Your task to perform on an android device: Open calendar and show me the fourth week of next month Image 0: 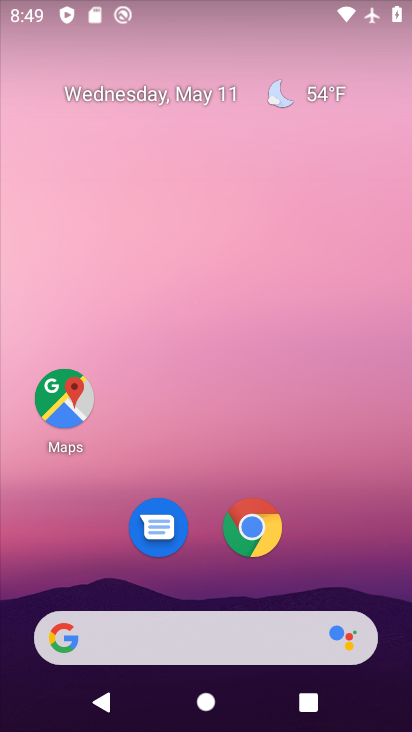
Step 0: drag from (345, 423) to (346, 104)
Your task to perform on an android device: Open calendar and show me the fourth week of next month Image 1: 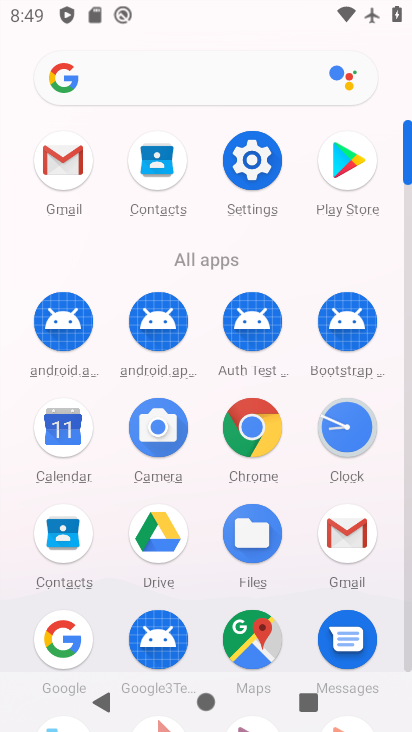
Step 1: click (62, 426)
Your task to perform on an android device: Open calendar and show me the fourth week of next month Image 2: 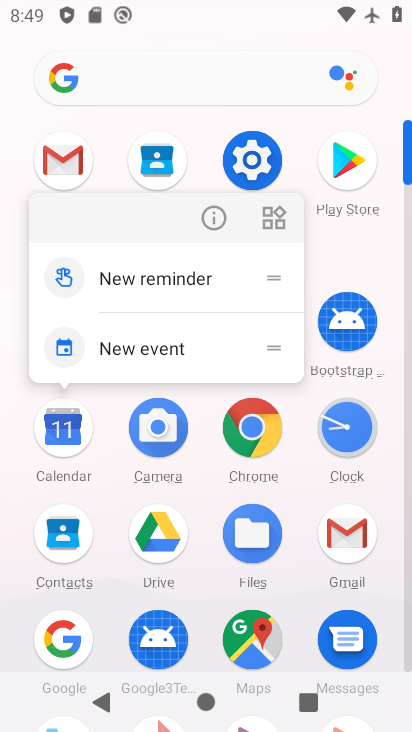
Step 2: click (57, 442)
Your task to perform on an android device: Open calendar and show me the fourth week of next month Image 3: 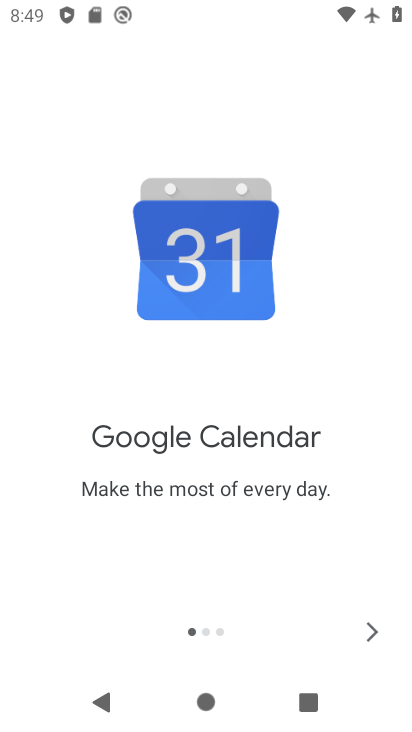
Step 3: click (356, 632)
Your task to perform on an android device: Open calendar and show me the fourth week of next month Image 4: 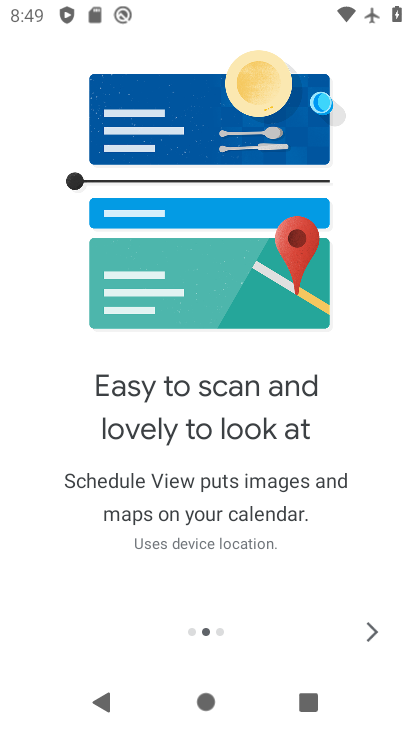
Step 4: click (361, 626)
Your task to perform on an android device: Open calendar and show me the fourth week of next month Image 5: 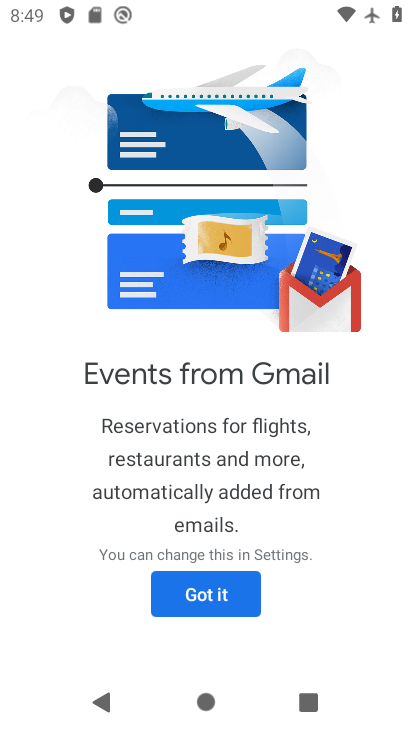
Step 5: click (231, 596)
Your task to perform on an android device: Open calendar and show me the fourth week of next month Image 6: 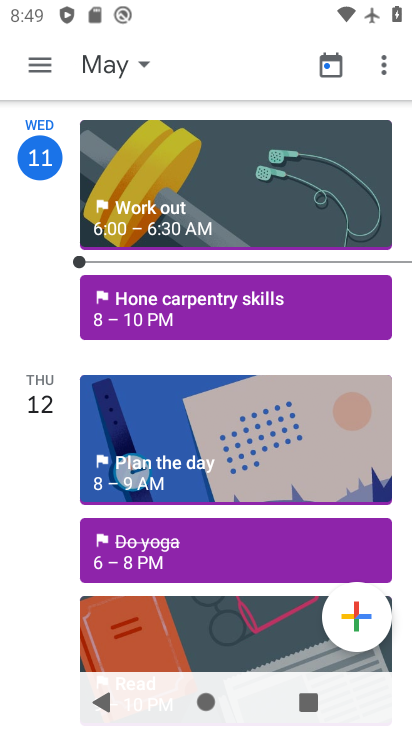
Step 6: click (100, 71)
Your task to perform on an android device: Open calendar and show me the fourth week of next month Image 7: 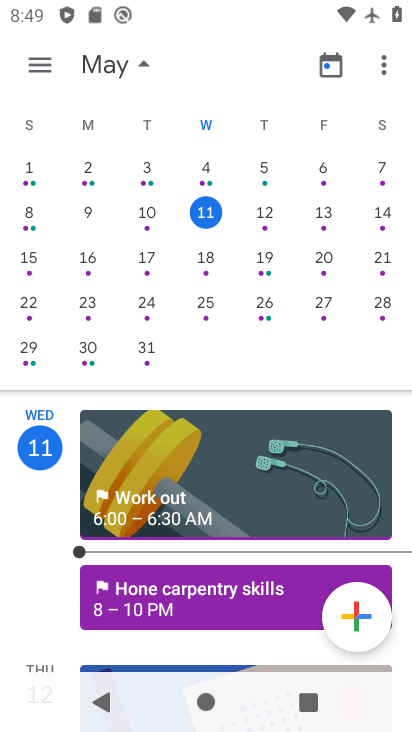
Step 7: drag from (339, 273) to (27, 335)
Your task to perform on an android device: Open calendar and show me the fourth week of next month Image 8: 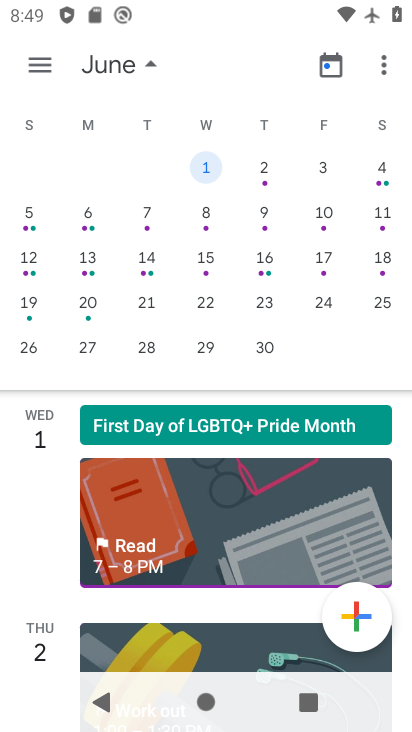
Step 8: drag from (357, 309) to (160, 302)
Your task to perform on an android device: Open calendar and show me the fourth week of next month Image 9: 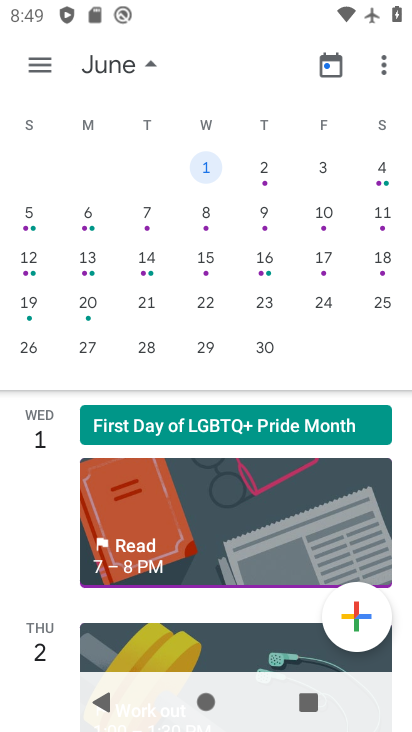
Step 9: click (33, 310)
Your task to perform on an android device: Open calendar and show me the fourth week of next month Image 10: 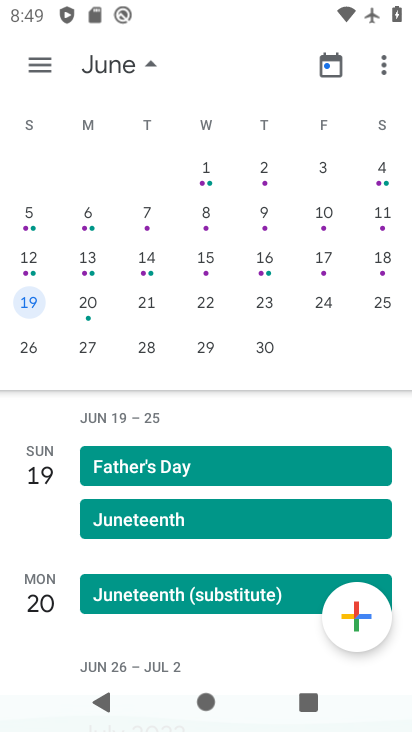
Step 10: click (87, 305)
Your task to perform on an android device: Open calendar and show me the fourth week of next month Image 11: 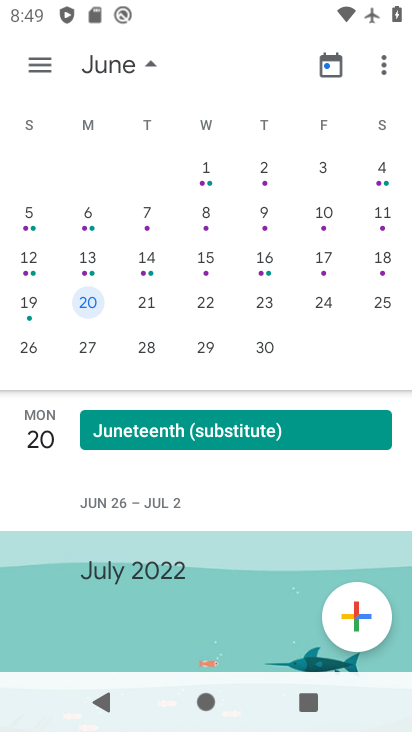
Step 11: click (150, 311)
Your task to perform on an android device: Open calendar and show me the fourth week of next month Image 12: 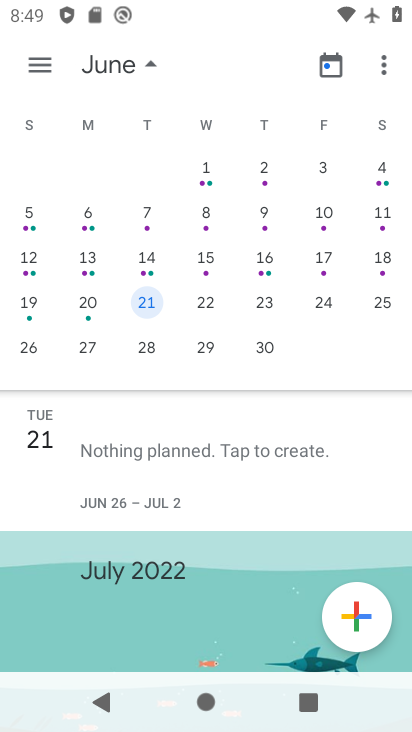
Step 12: click (211, 307)
Your task to perform on an android device: Open calendar and show me the fourth week of next month Image 13: 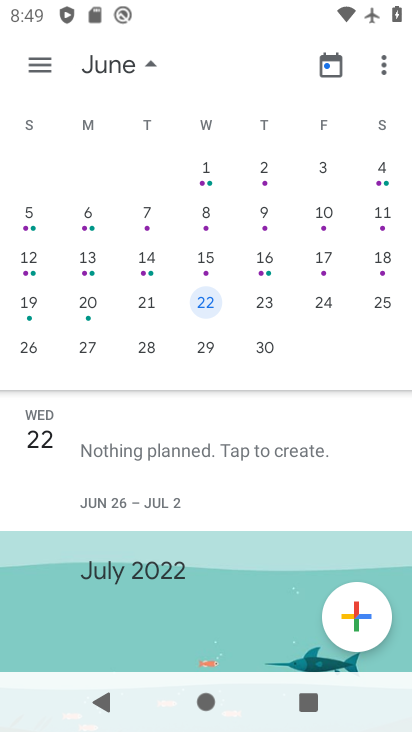
Step 13: click (254, 306)
Your task to perform on an android device: Open calendar and show me the fourth week of next month Image 14: 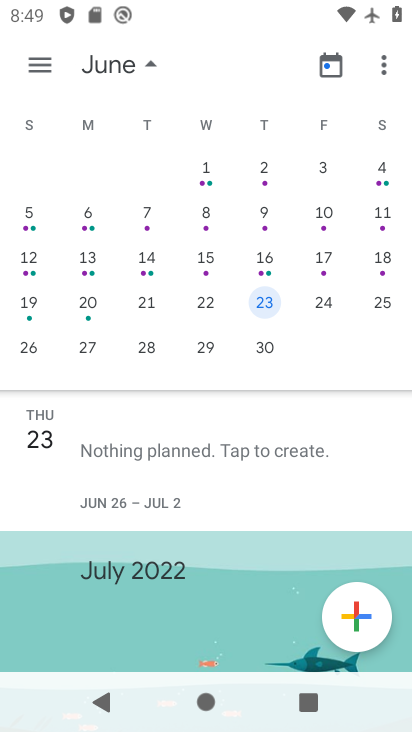
Step 14: click (322, 306)
Your task to perform on an android device: Open calendar and show me the fourth week of next month Image 15: 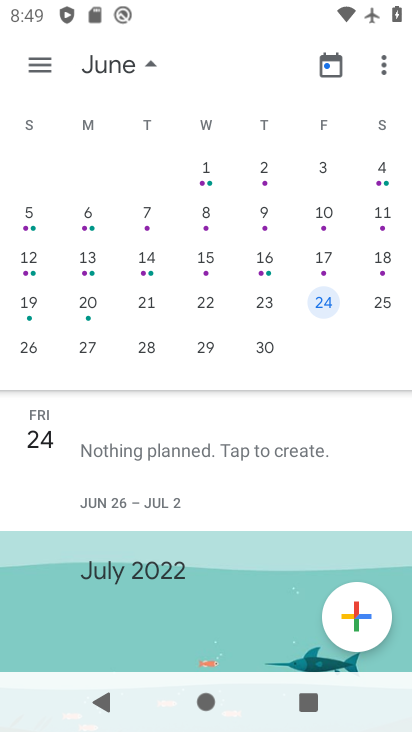
Step 15: click (384, 308)
Your task to perform on an android device: Open calendar and show me the fourth week of next month Image 16: 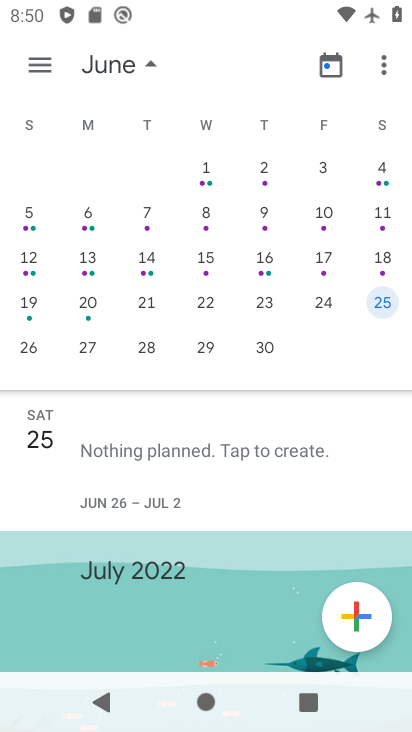
Step 16: task complete